Your task to perform on an android device: turn off smart reply in the gmail app Image 0: 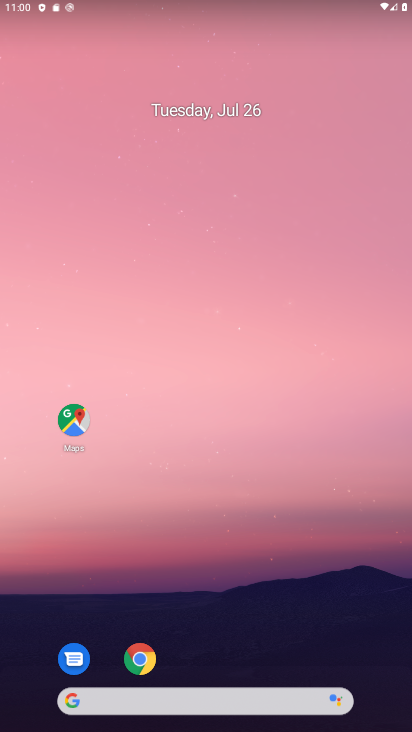
Step 0: drag from (259, 644) to (299, 27)
Your task to perform on an android device: turn off smart reply in the gmail app Image 1: 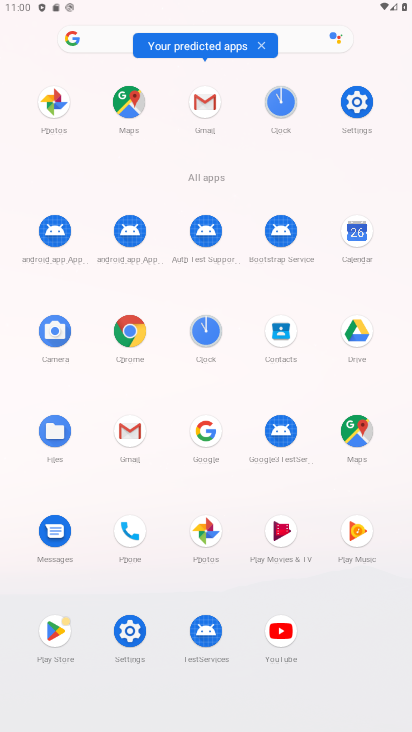
Step 1: click (210, 99)
Your task to perform on an android device: turn off smart reply in the gmail app Image 2: 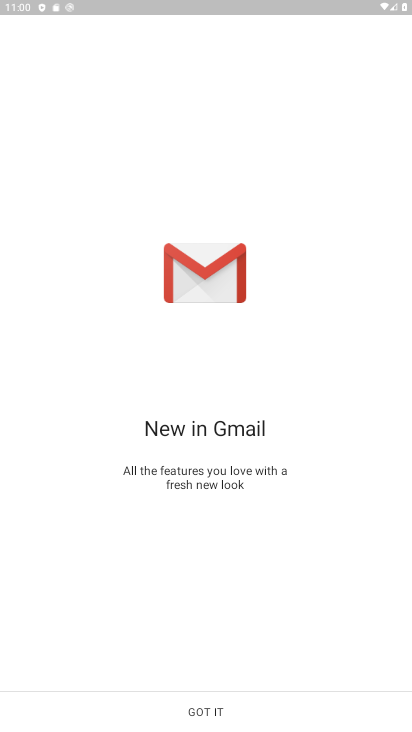
Step 2: click (221, 711)
Your task to perform on an android device: turn off smart reply in the gmail app Image 3: 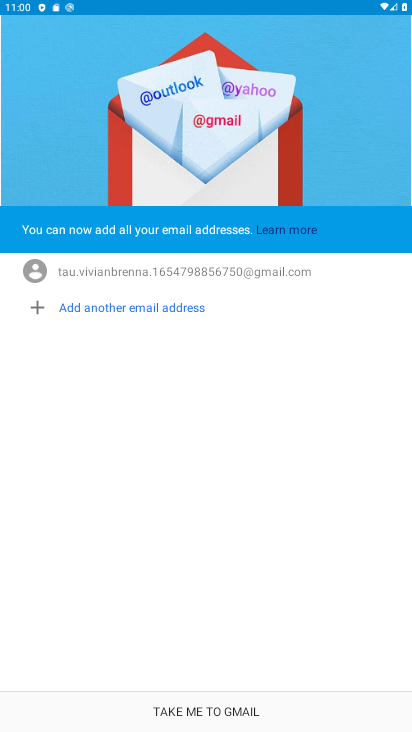
Step 3: click (221, 711)
Your task to perform on an android device: turn off smart reply in the gmail app Image 4: 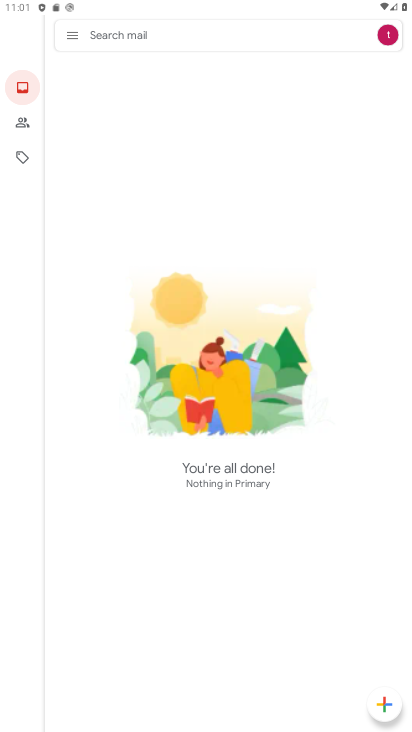
Step 4: click (75, 38)
Your task to perform on an android device: turn off smart reply in the gmail app Image 5: 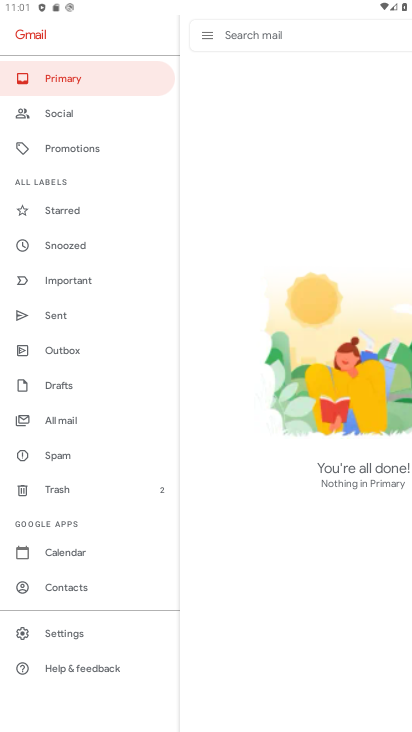
Step 5: click (83, 640)
Your task to perform on an android device: turn off smart reply in the gmail app Image 6: 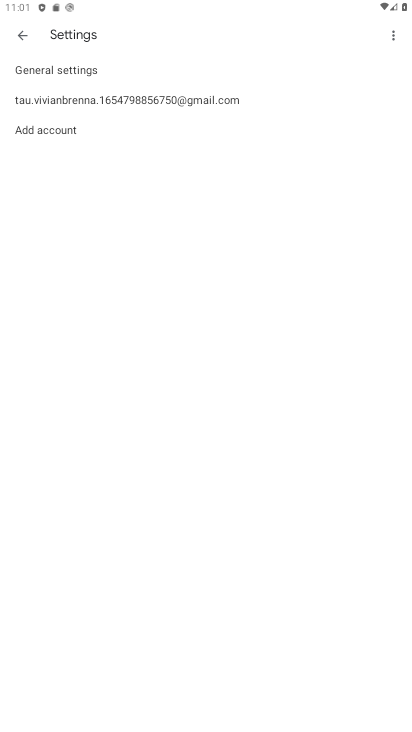
Step 6: click (199, 109)
Your task to perform on an android device: turn off smart reply in the gmail app Image 7: 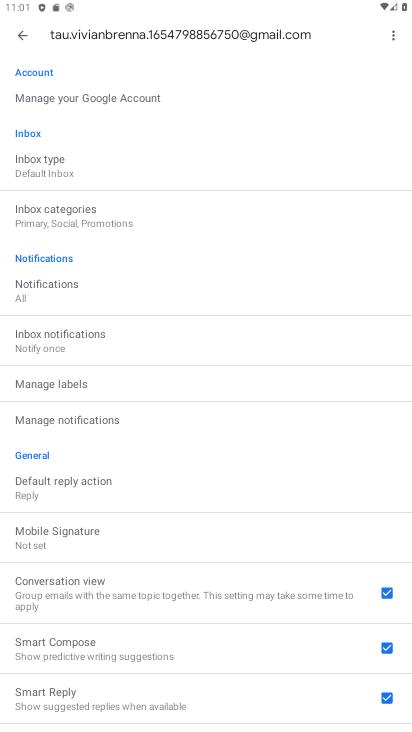
Step 7: drag from (321, 705) to (305, 416)
Your task to perform on an android device: turn off smart reply in the gmail app Image 8: 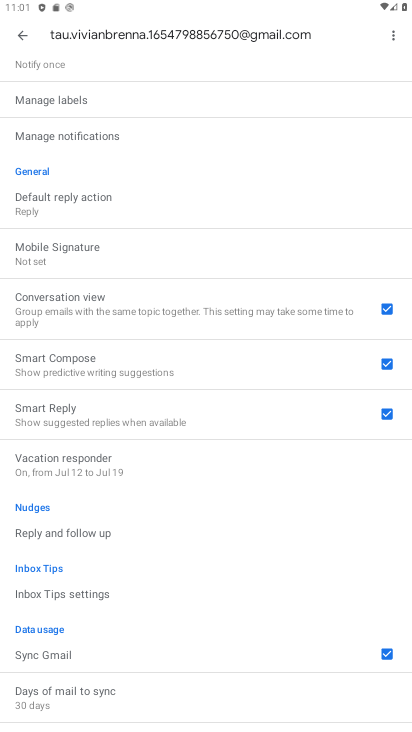
Step 8: click (389, 411)
Your task to perform on an android device: turn off smart reply in the gmail app Image 9: 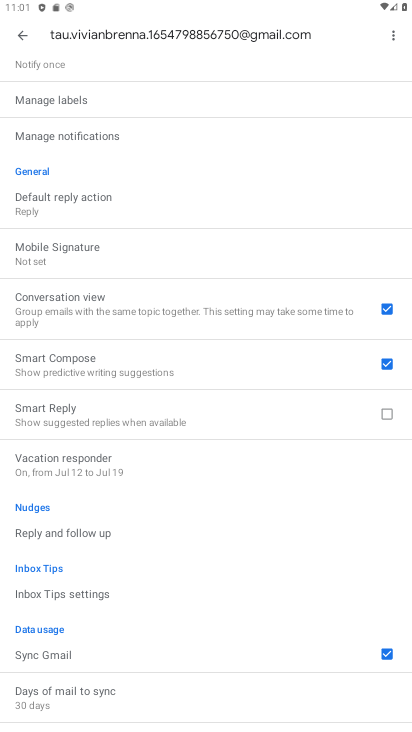
Step 9: task complete